Your task to perform on an android device: Go to Yahoo.com Image 0: 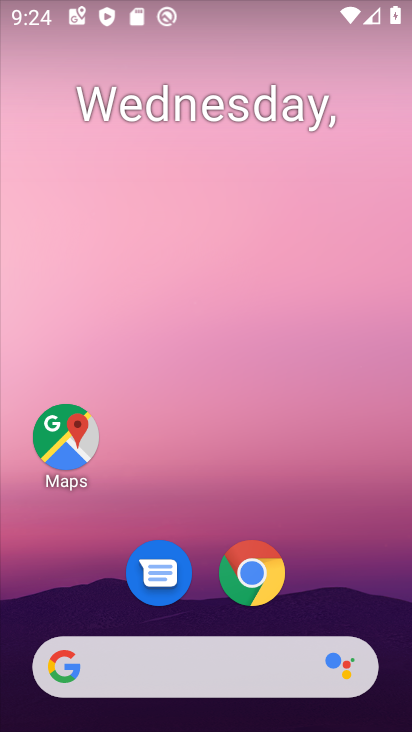
Step 0: click (265, 581)
Your task to perform on an android device: Go to Yahoo.com Image 1: 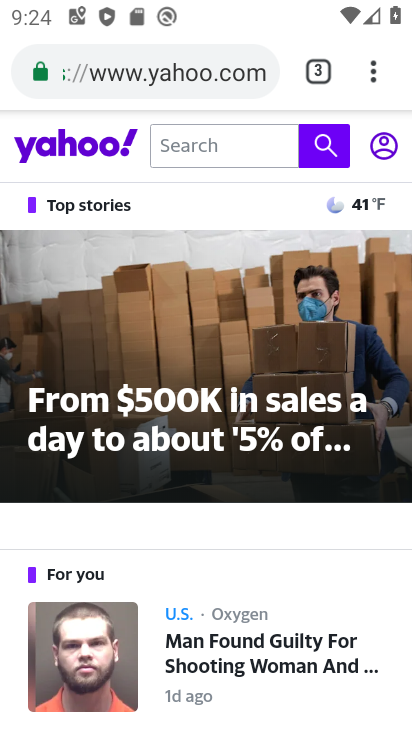
Step 1: task complete